Your task to perform on an android device: Show me popular videos on Youtube Image 0: 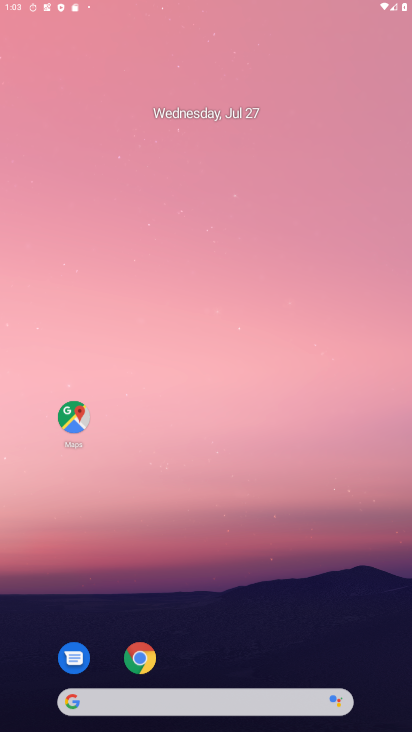
Step 0: press home button
Your task to perform on an android device: Show me popular videos on Youtube Image 1: 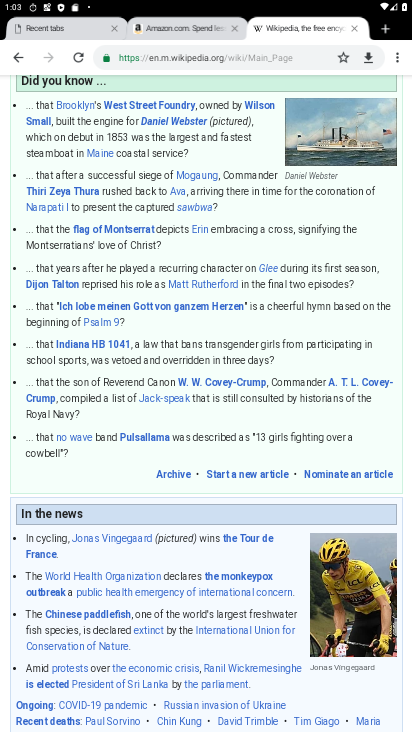
Step 1: click (295, 55)
Your task to perform on an android device: Show me popular videos on Youtube Image 2: 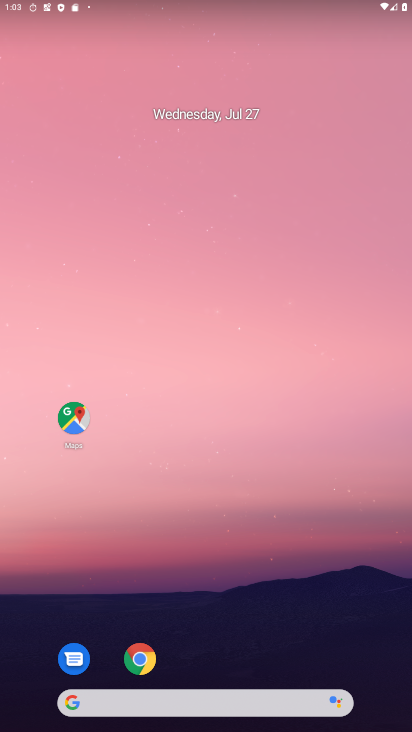
Step 2: drag from (208, 668) to (244, 24)
Your task to perform on an android device: Show me popular videos on Youtube Image 3: 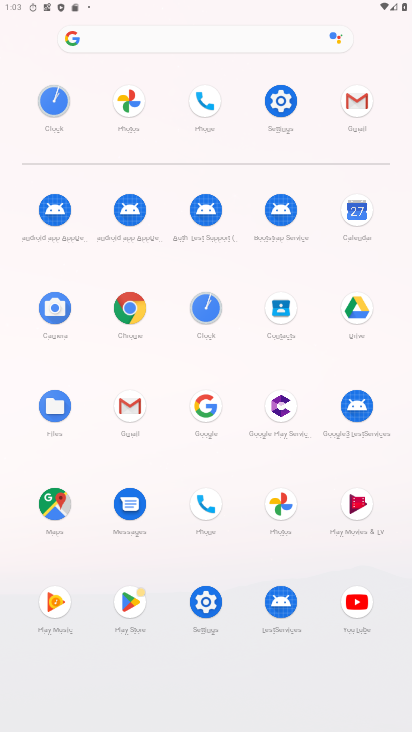
Step 3: click (356, 596)
Your task to perform on an android device: Show me popular videos on Youtube Image 4: 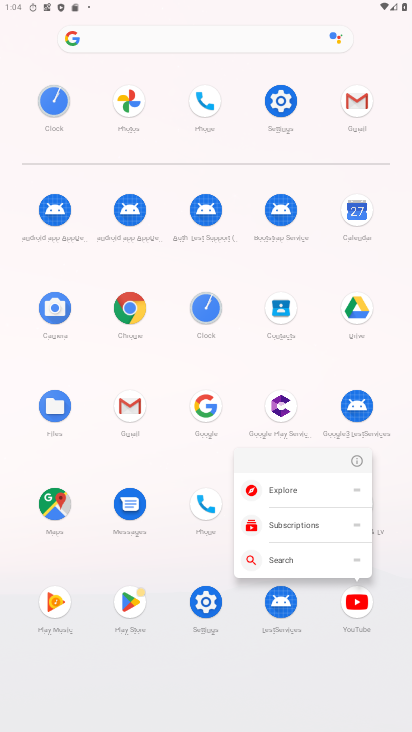
Step 4: click (353, 599)
Your task to perform on an android device: Show me popular videos on Youtube Image 5: 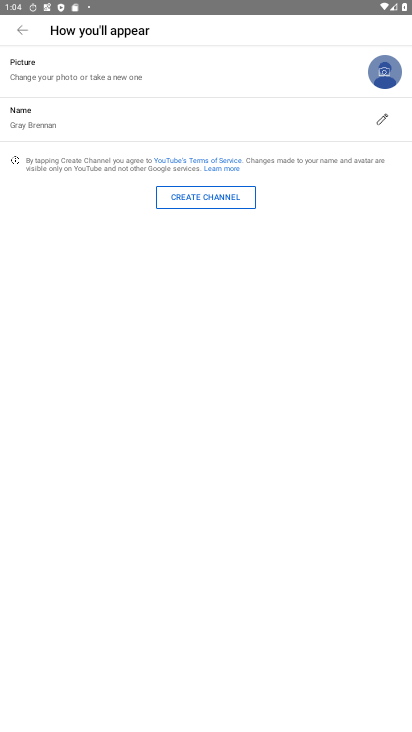
Step 5: click (22, 32)
Your task to perform on an android device: Show me popular videos on Youtube Image 6: 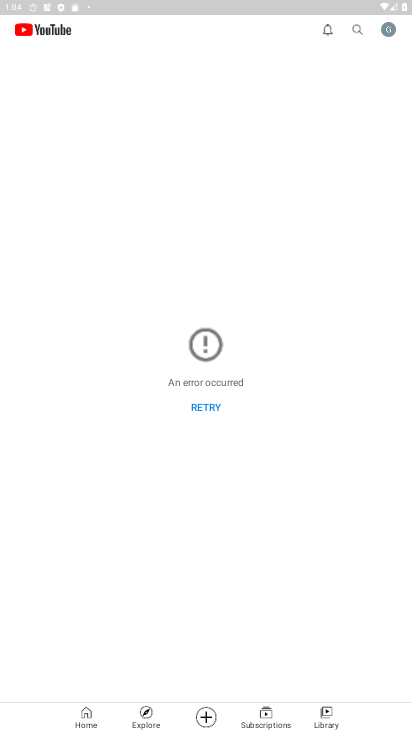
Step 6: click (147, 715)
Your task to perform on an android device: Show me popular videos on Youtube Image 7: 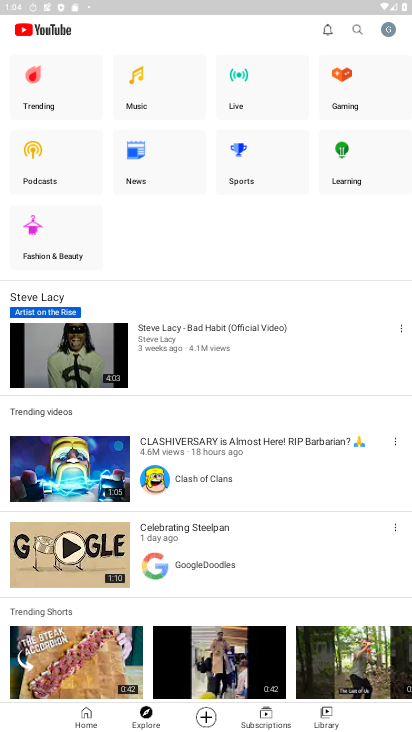
Step 7: click (49, 78)
Your task to perform on an android device: Show me popular videos on Youtube Image 8: 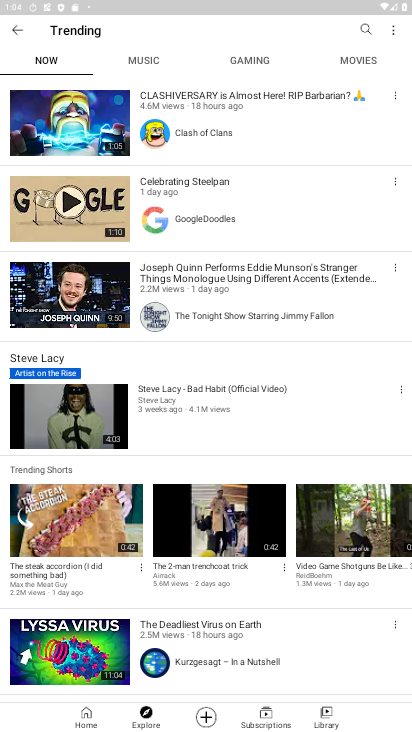
Step 8: task complete